Your task to perform on an android device: turn off improve location accuracy Image 0: 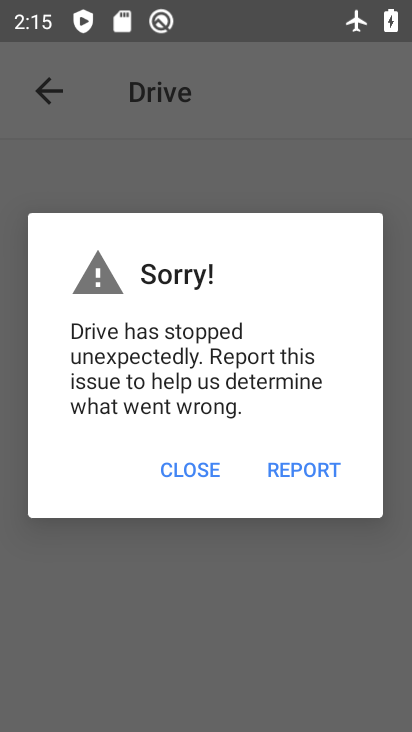
Step 0: press home button
Your task to perform on an android device: turn off improve location accuracy Image 1: 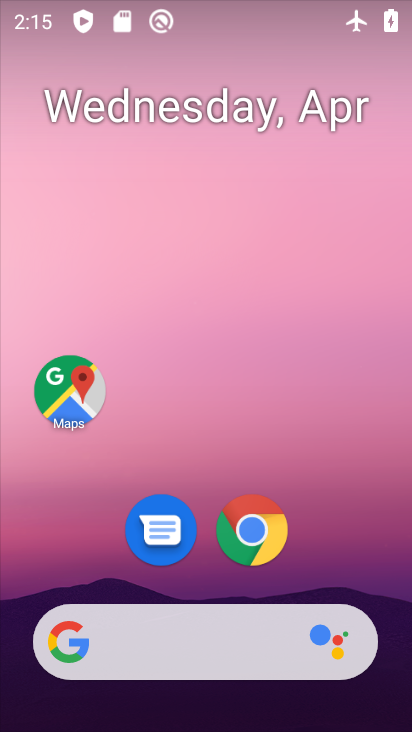
Step 1: drag from (352, 530) to (376, 159)
Your task to perform on an android device: turn off improve location accuracy Image 2: 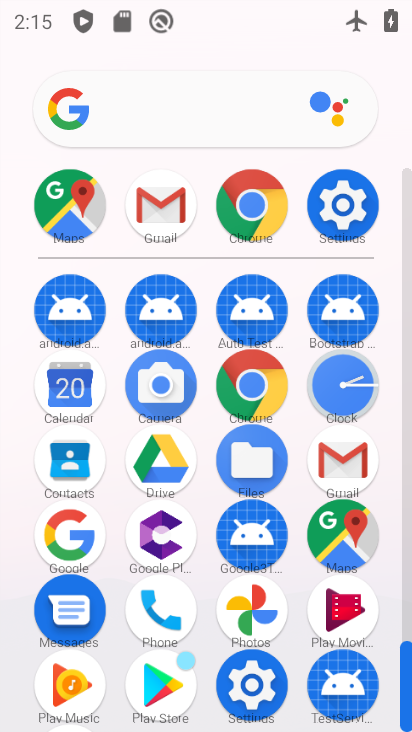
Step 2: click (359, 194)
Your task to perform on an android device: turn off improve location accuracy Image 3: 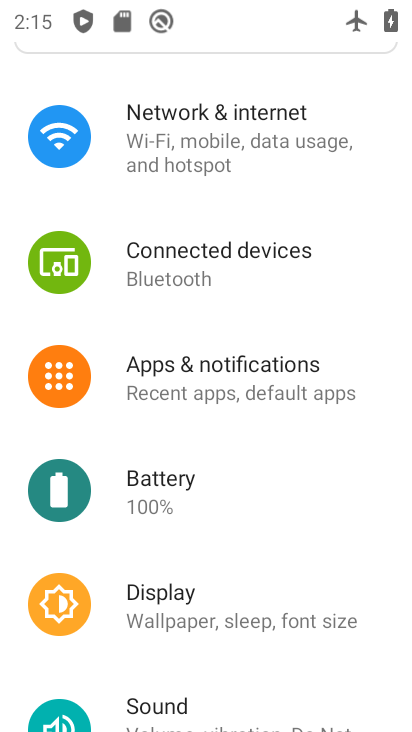
Step 3: drag from (290, 679) to (344, 306)
Your task to perform on an android device: turn off improve location accuracy Image 4: 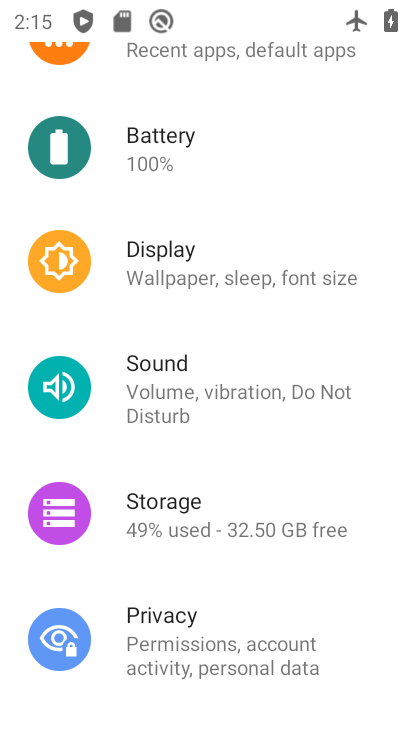
Step 4: drag from (265, 582) to (337, 294)
Your task to perform on an android device: turn off improve location accuracy Image 5: 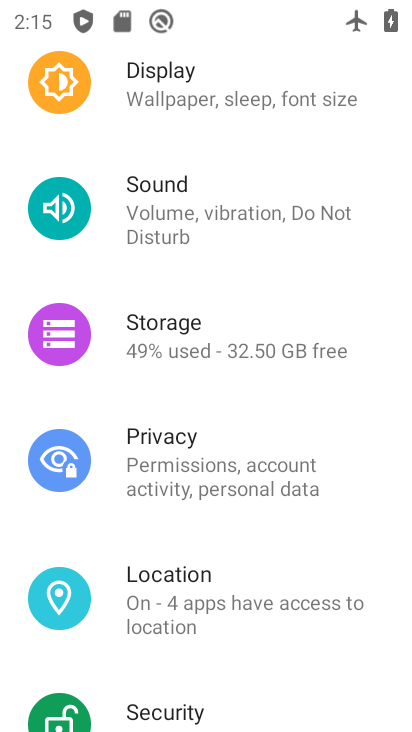
Step 5: click (208, 606)
Your task to perform on an android device: turn off improve location accuracy Image 6: 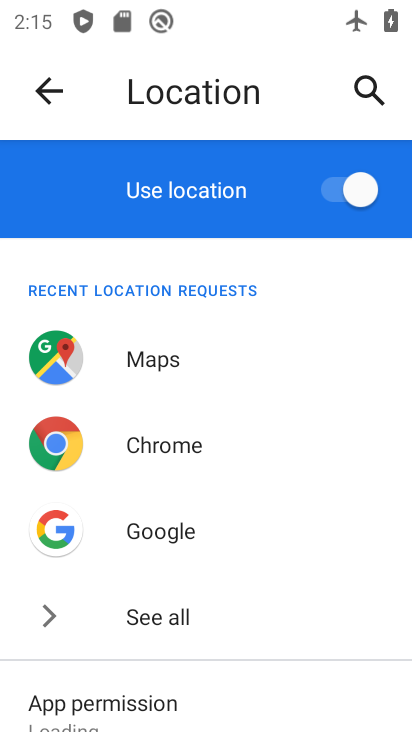
Step 6: drag from (322, 686) to (346, 298)
Your task to perform on an android device: turn off improve location accuracy Image 7: 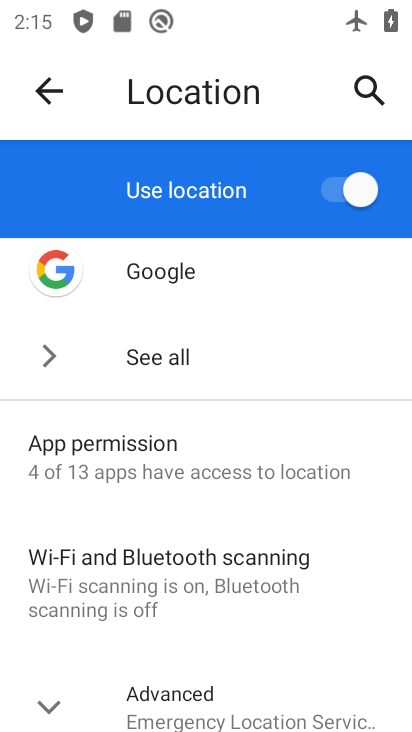
Step 7: drag from (274, 535) to (330, 360)
Your task to perform on an android device: turn off improve location accuracy Image 8: 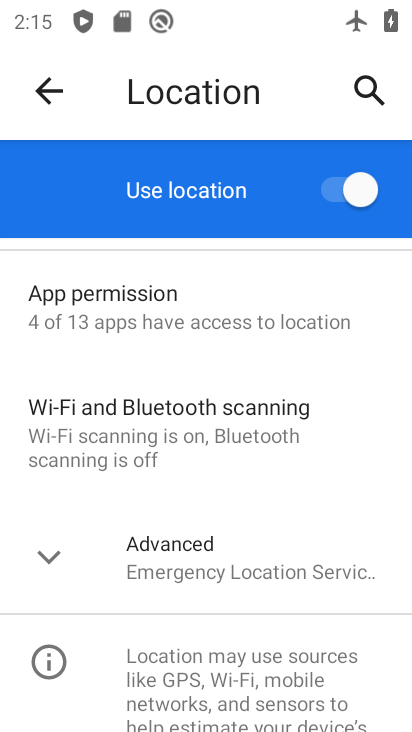
Step 8: drag from (243, 588) to (342, 427)
Your task to perform on an android device: turn off improve location accuracy Image 9: 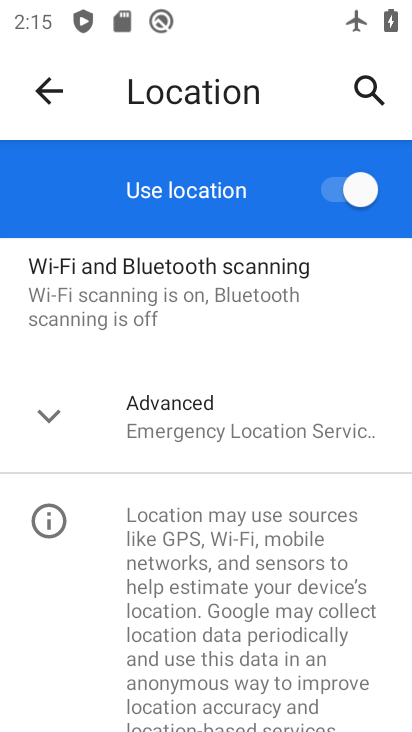
Step 9: click (255, 420)
Your task to perform on an android device: turn off improve location accuracy Image 10: 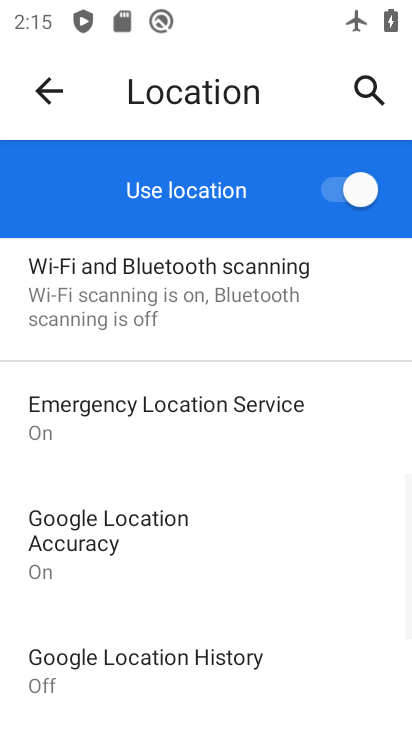
Step 10: drag from (288, 628) to (336, 426)
Your task to perform on an android device: turn off improve location accuracy Image 11: 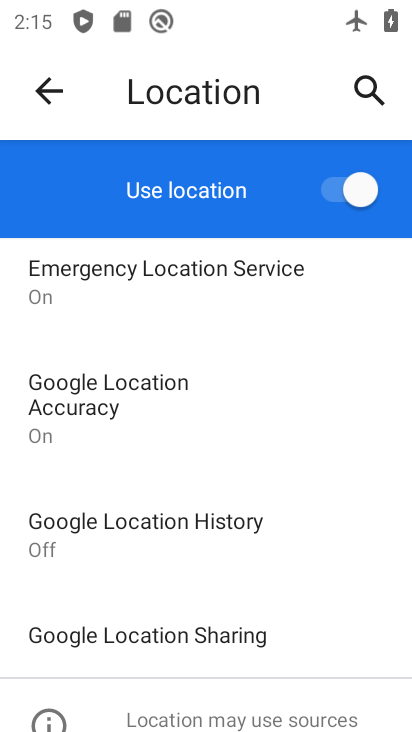
Step 11: click (145, 427)
Your task to perform on an android device: turn off improve location accuracy Image 12: 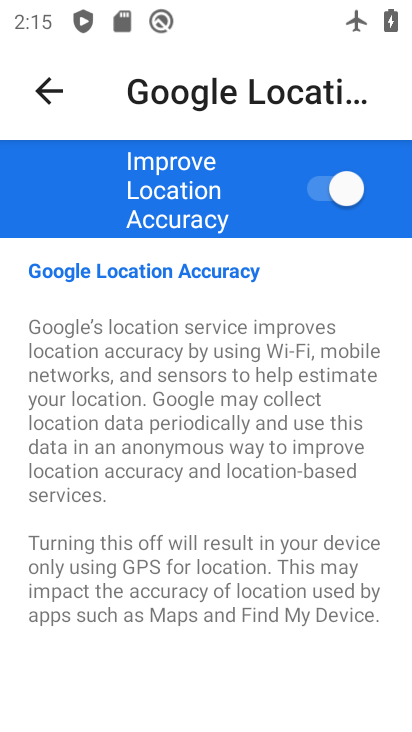
Step 12: click (332, 195)
Your task to perform on an android device: turn off improve location accuracy Image 13: 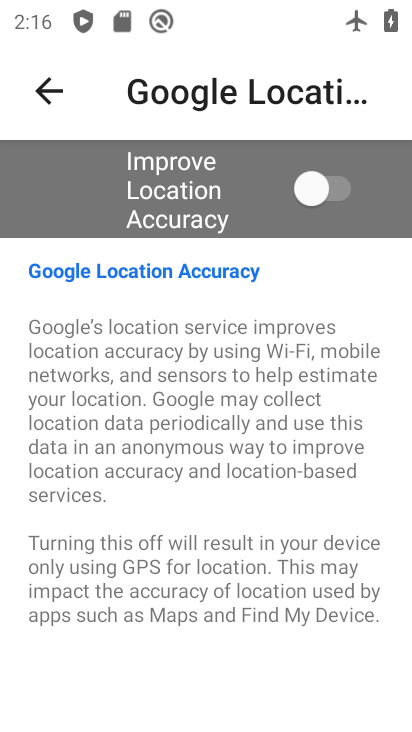
Step 13: task complete